Your task to perform on an android device: Do I have any events today? Image 0: 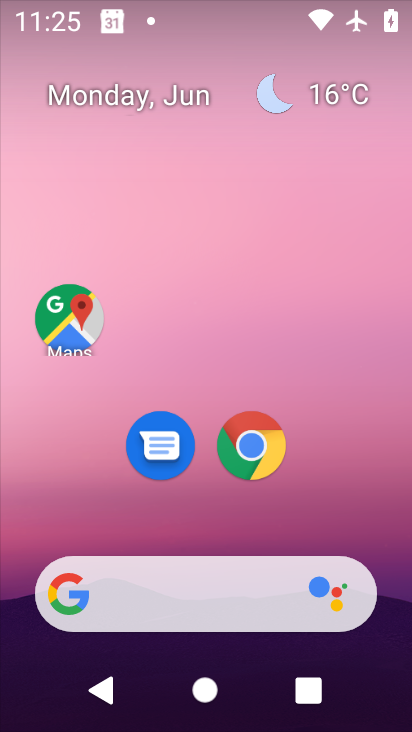
Step 0: drag from (335, 482) to (253, 10)
Your task to perform on an android device: Do I have any events today? Image 1: 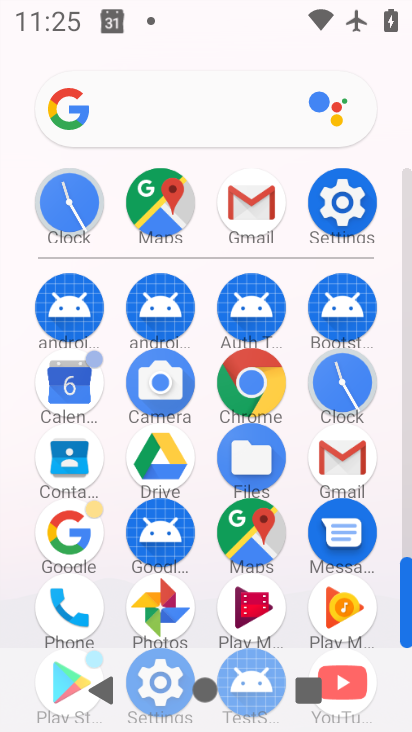
Step 1: click (62, 389)
Your task to perform on an android device: Do I have any events today? Image 2: 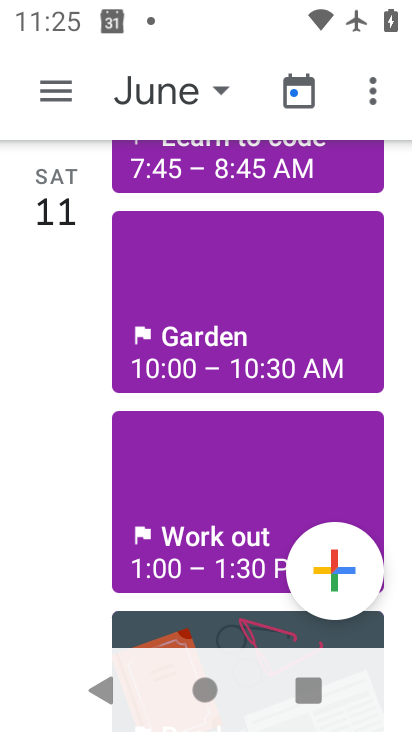
Step 2: click (44, 91)
Your task to perform on an android device: Do I have any events today? Image 3: 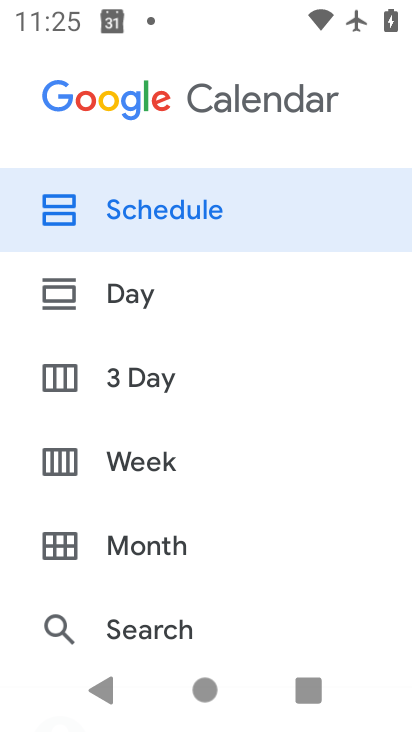
Step 3: click (139, 208)
Your task to perform on an android device: Do I have any events today? Image 4: 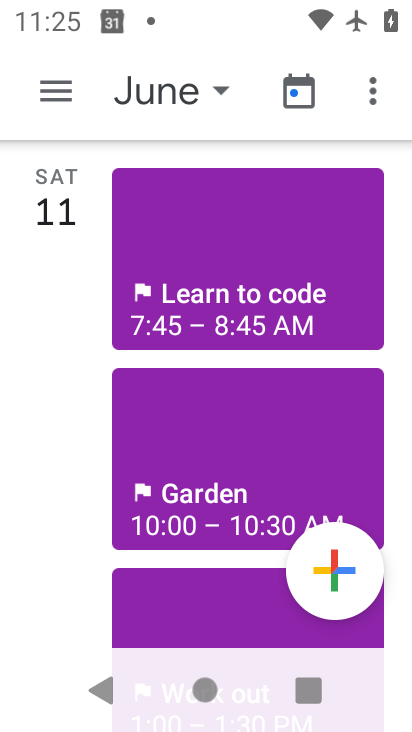
Step 4: task complete